Your task to perform on an android device: allow notifications from all sites in the chrome app Image 0: 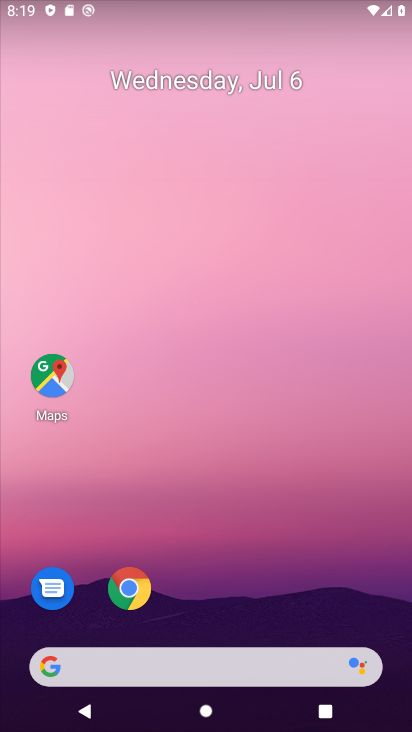
Step 0: drag from (327, 575) to (206, 138)
Your task to perform on an android device: allow notifications from all sites in the chrome app Image 1: 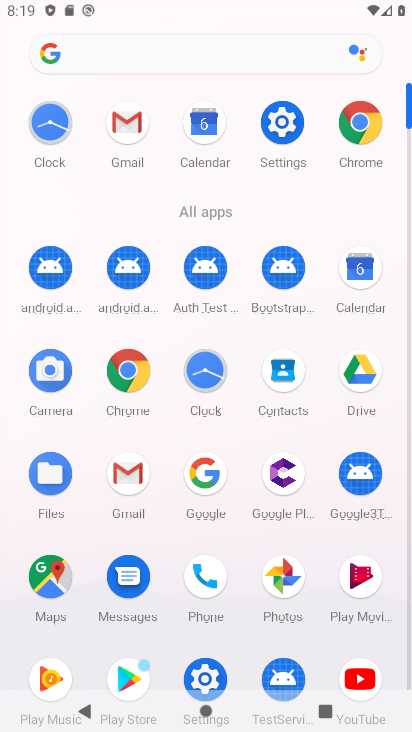
Step 1: click (368, 132)
Your task to perform on an android device: allow notifications from all sites in the chrome app Image 2: 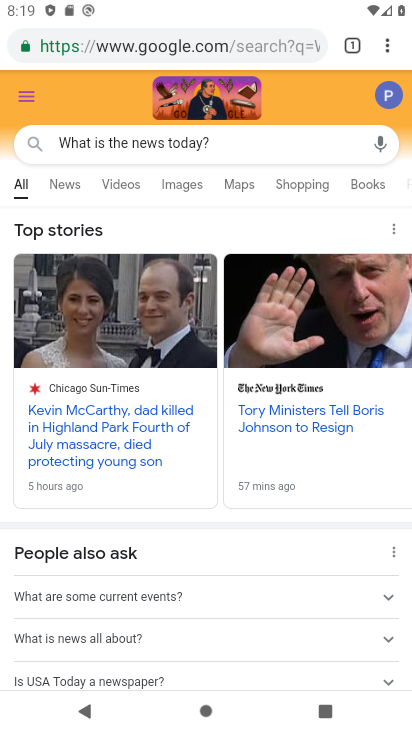
Step 2: click (387, 47)
Your task to perform on an android device: allow notifications from all sites in the chrome app Image 3: 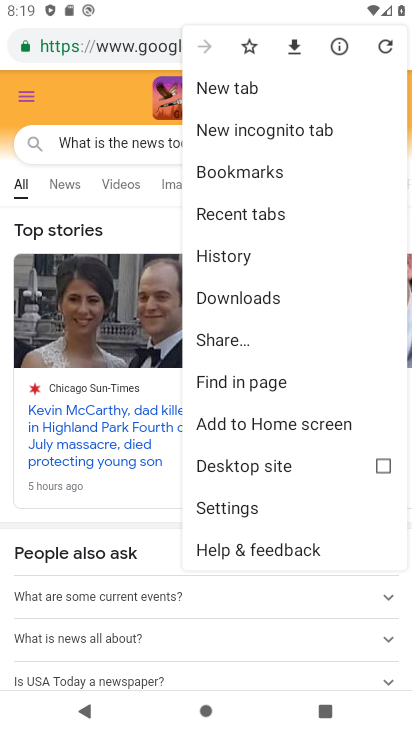
Step 3: click (275, 511)
Your task to perform on an android device: allow notifications from all sites in the chrome app Image 4: 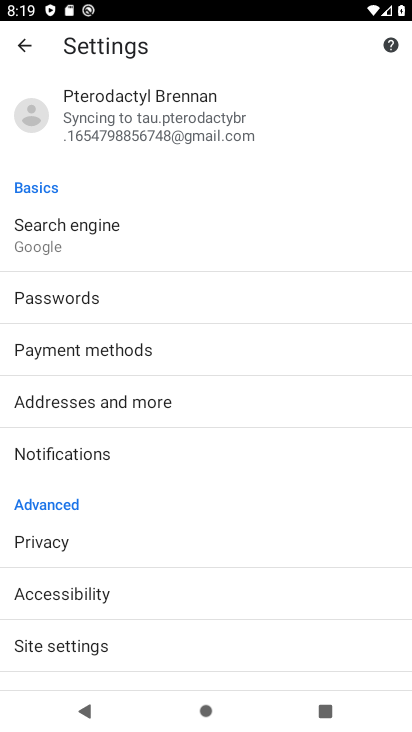
Step 4: drag from (230, 658) to (185, 285)
Your task to perform on an android device: allow notifications from all sites in the chrome app Image 5: 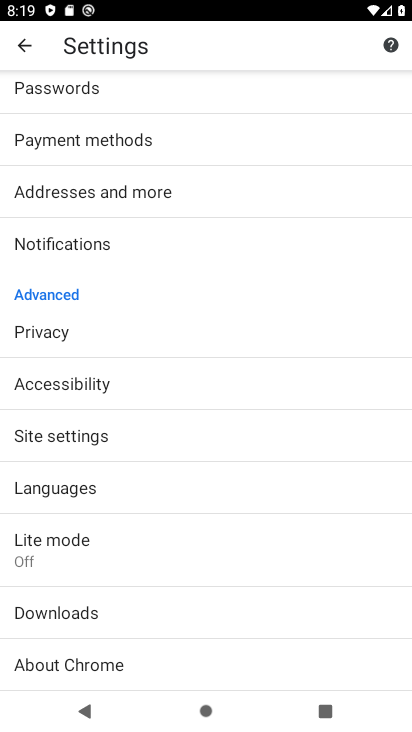
Step 5: click (183, 439)
Your task to perform on an android device: allow notifications from all sites in the chrome app Image 6: 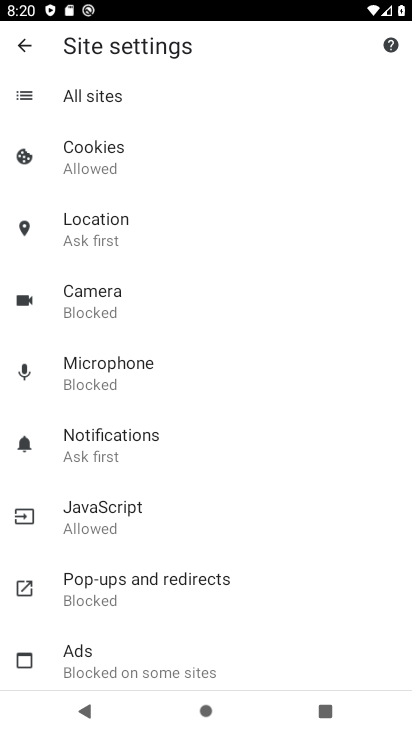
Step 6: click (236, 436)
Your task to perform on an android device: allow notifications from all sites in the chrome app Image 7: 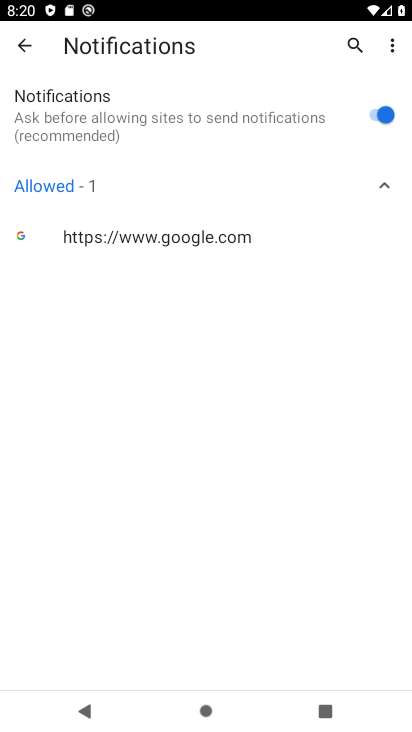
Step 7: task complete